Your task to perform on an android device: clear history in the chrome app Image 0: 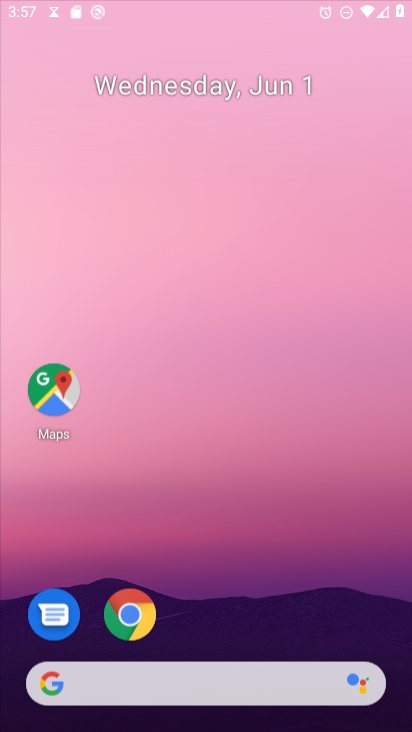
Step 0: press home button
Your task to perform on an android device: clear history in the chrome app Image 1: 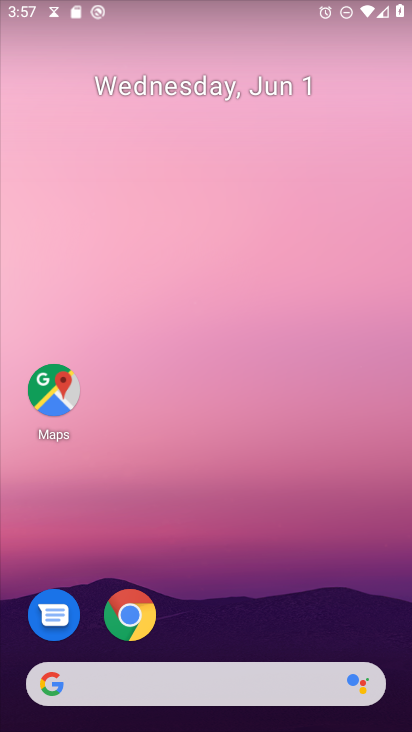
Step 1: click (131, 609)
Your task to perform on an android device: clear history in the chrome app Image 2: 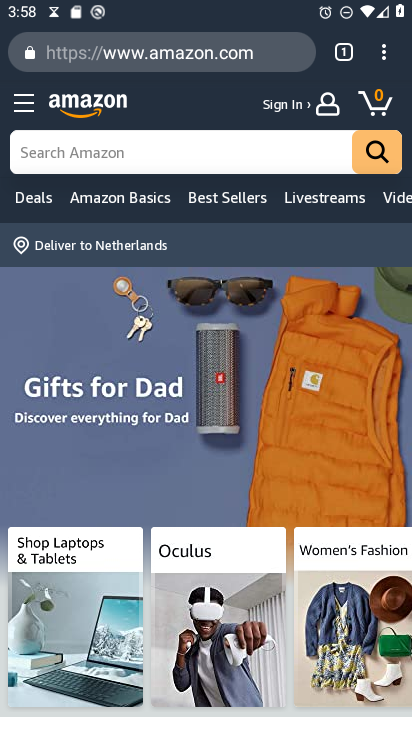
Step 2: click (381, 44)
Your task to perform on an android device: clear history in the chrome app Image 3: 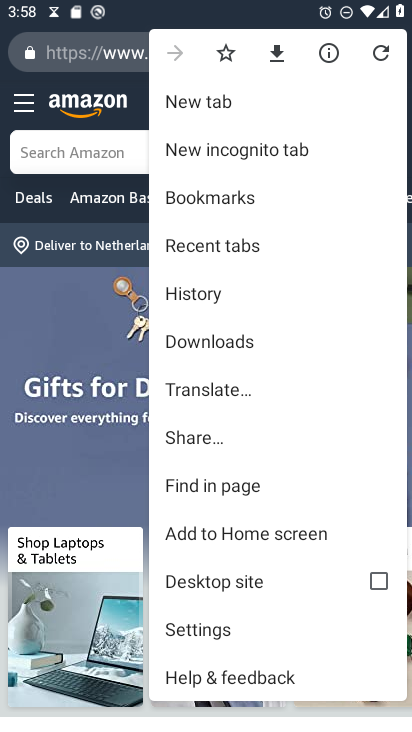
Step 3: click (232, 290)
Your task to perform on an android device: clear history in the chrome app Image 4: 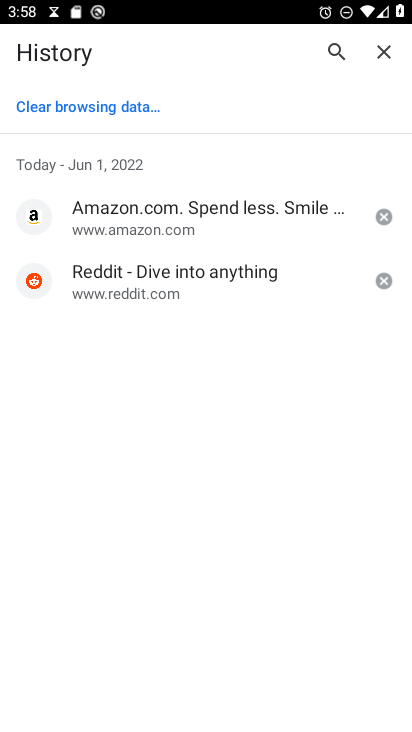
Step 4: click (96, 109)
Your task to perform on an android device: clear history in the chrome app Image 5: 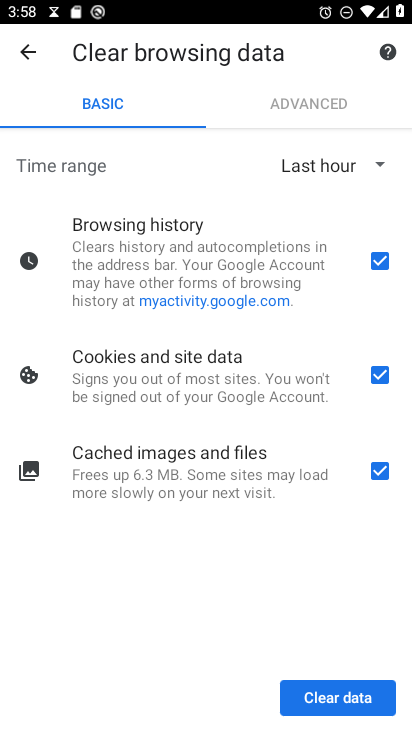
Step 5: click (382, 158)
Your task to perform on an android device: clear history in the chrome app Image 6: 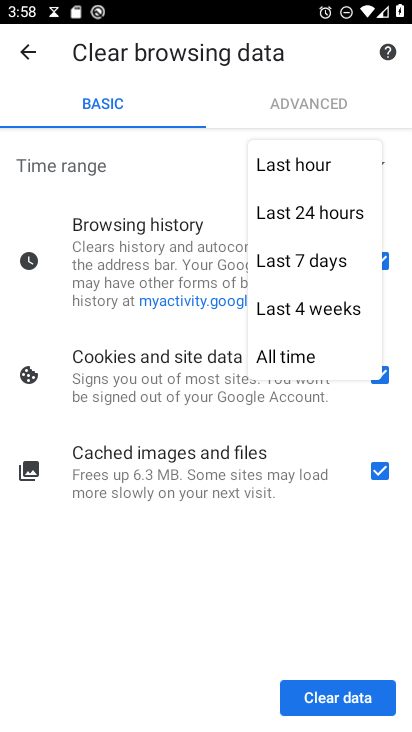
Step 6: click (327, 353)
Your task to perform on an android device: clear history in the chrome app Image 7: 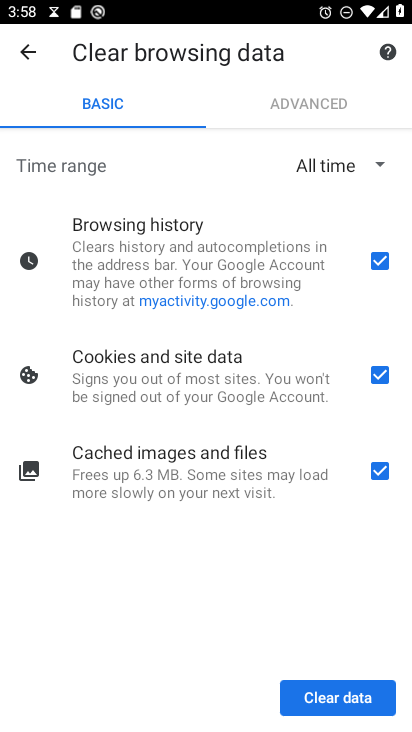
Step 7: click (338, 704)
Your task to perform on an android device: clear history in the chrome app Image 8: 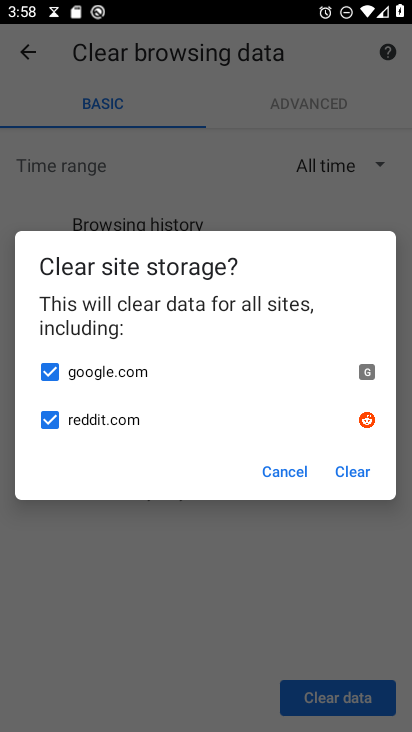
Step 8: click (349, 473)
Your task to perform on an android device: clear history in the chrome app Image 9: 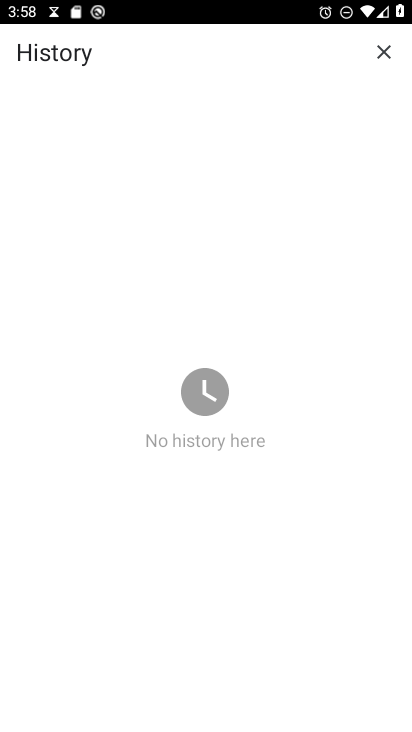
Step 9: task complete